Your task to perform on an android device: check out phone information Image 0: 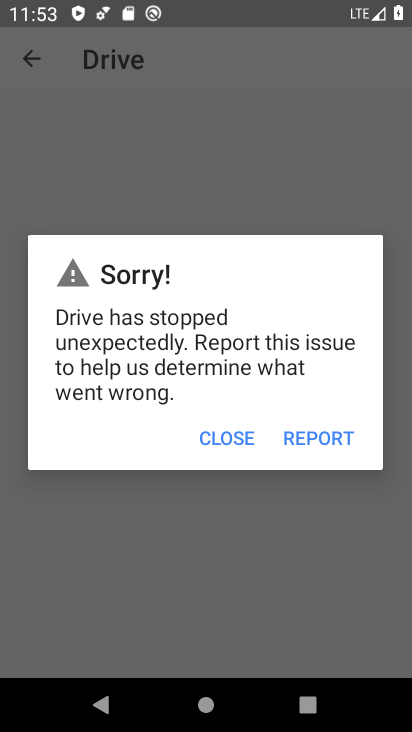
Step 0: drag from (308, 2) to (336, 439)
Your task to perform on an android device: check out phone information Image 1: 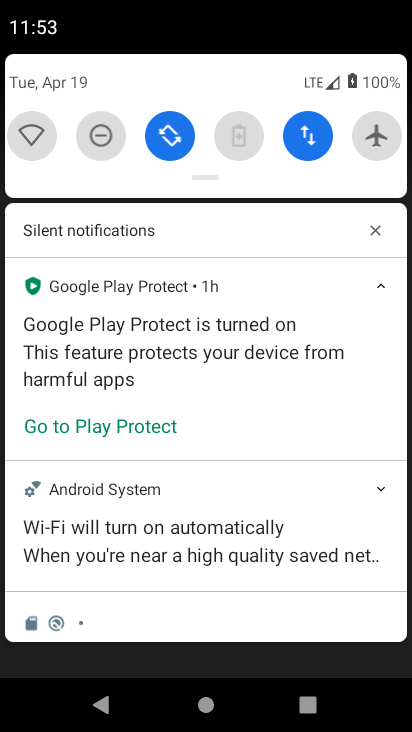
Step 1: drag from (227, 109) to (177, 705)
Your task to perform on an android device: check out phone information Image 2: 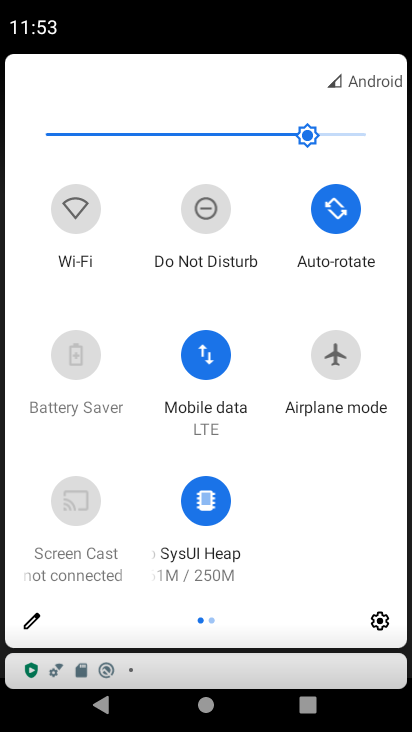
Step 2: click (380, 625)
Your task to perform on an android device: check out phone information Image 3: 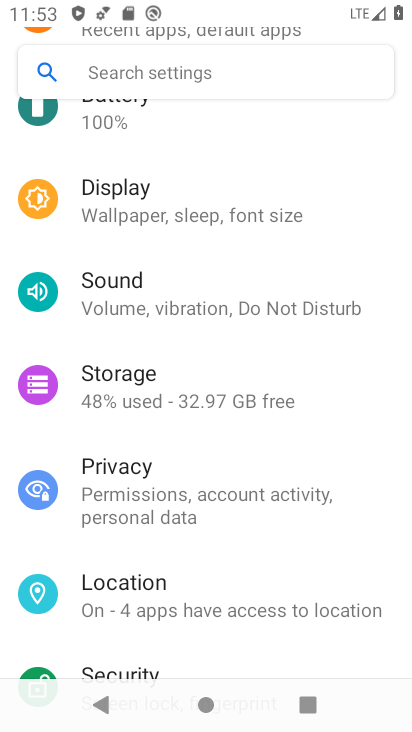
Step 3: drag from (139, 570) to (203, 3)
Your task to perform on an android device: check out phone information Image 4: 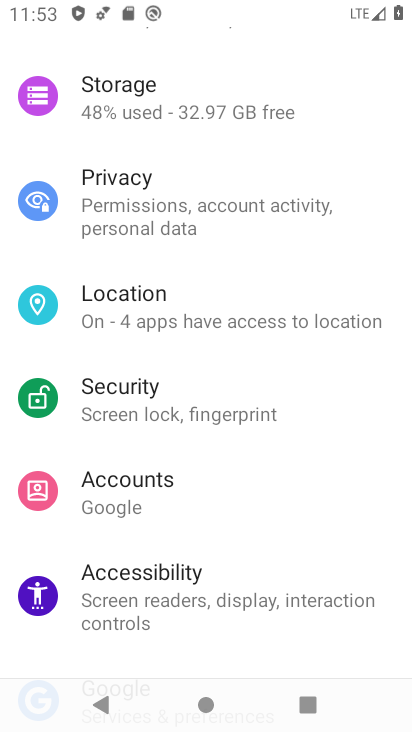
Step 4: drag from (212, 543) to (341, 36)
Your task to perform on an android device: check out phone information Image 5: 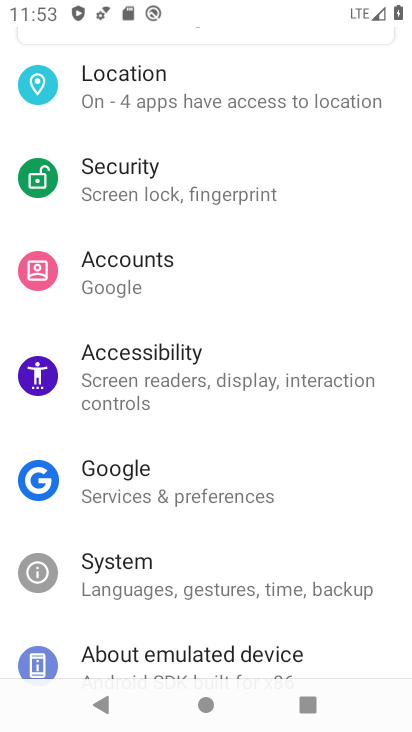
Step 5: drag from (141, 487) to (231, 17)
Your task to perform on an android device: check out phone information Image 6: 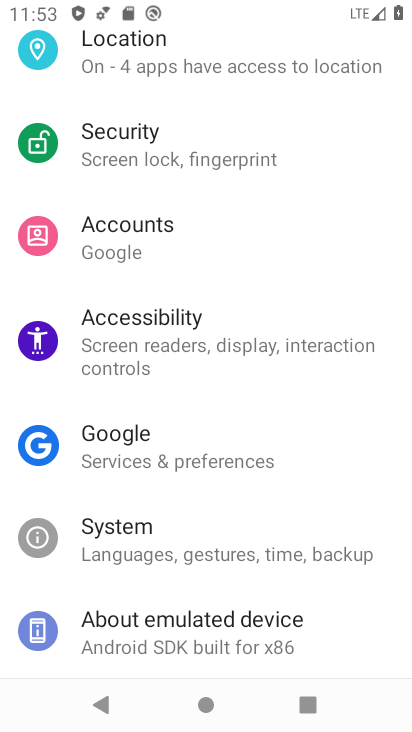
Step 6: drag from (239, 582) to (319, 126)
Your task to perform on an android device: check out phone information Image 7: 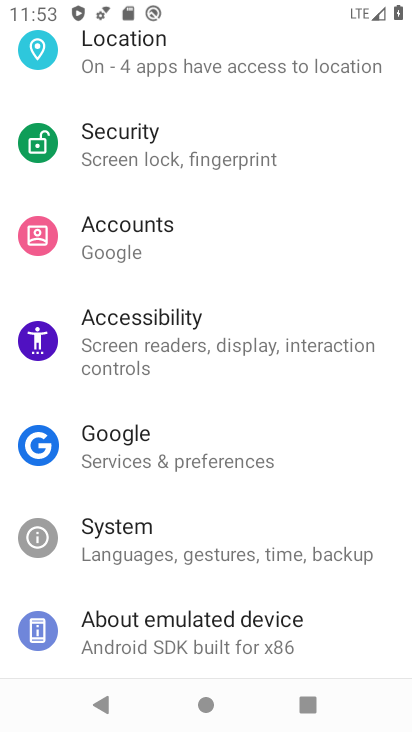
Step 7: click (115, 617)
Your task to perform on an android device: check out phone information Image 8: 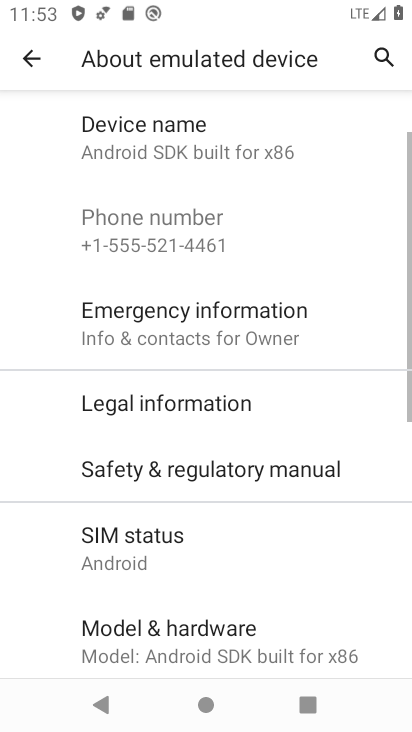
Step 8: task complete